Your task to perform on an android device: Open Yahoo.com Image 0: 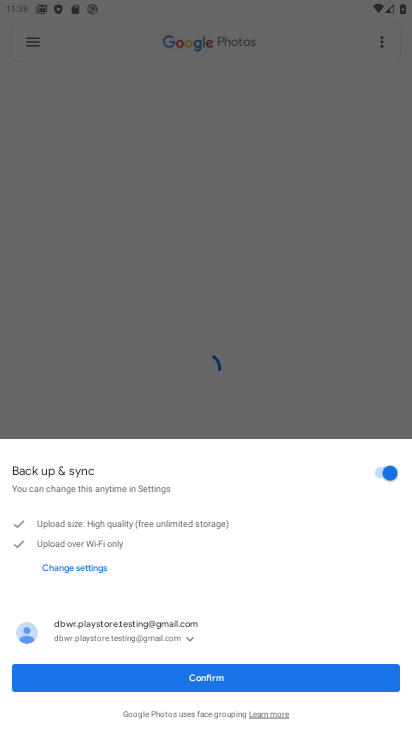
Step 0: press home button
Your task to perform on an android device: Open Yahoo.com Image 1: 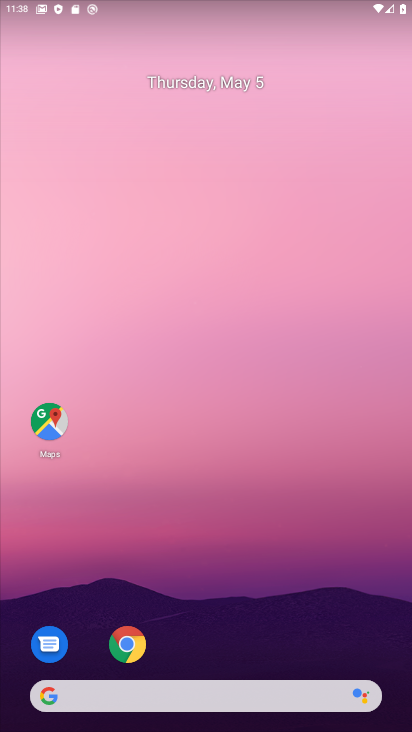
Step 1: click (128, 641)
Your task to perform on an android device: Open Yahoo.com Image 2: 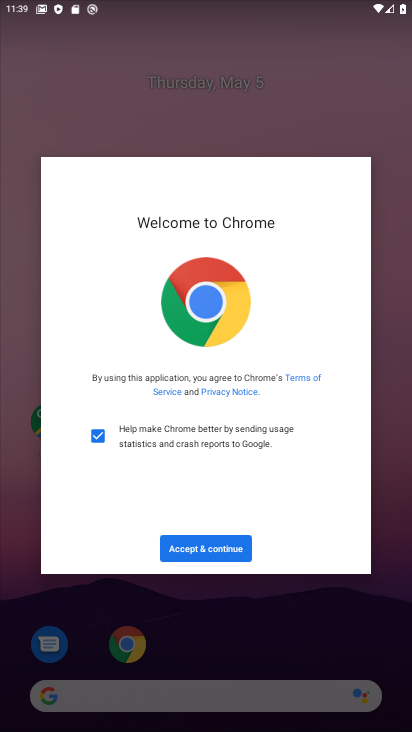
Step 2: click (204, 547)
Your task to perform on an android device: Open Yahoo.com Image 3: 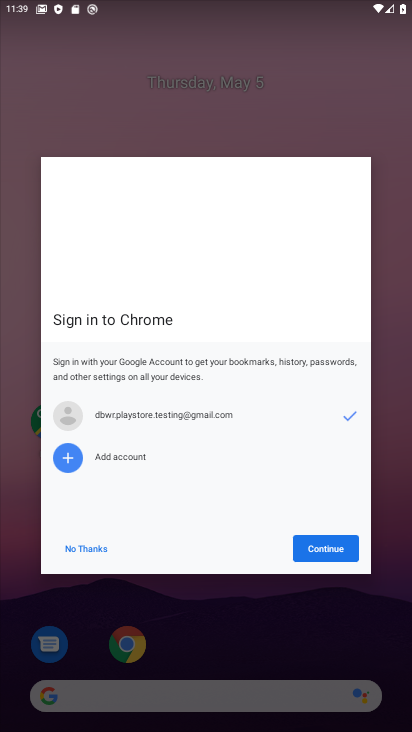
Step 3: click (103, 545)
Your task to perform on an android device: Open Yahoo.com Image 4: 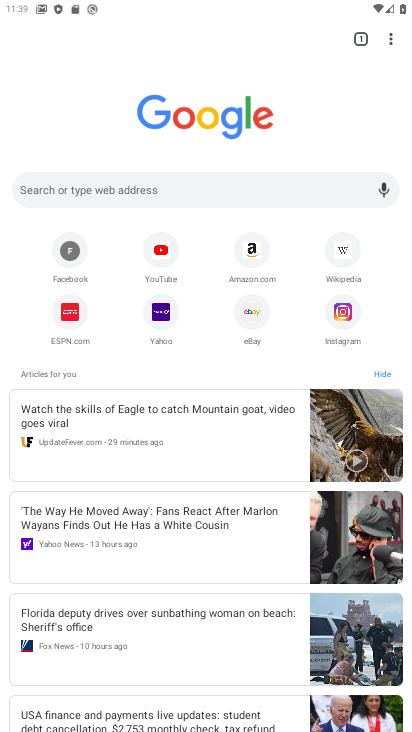
Step 4: click (168, 313)
Your task to perform on an android device: Open Yahoo.com Image 5: 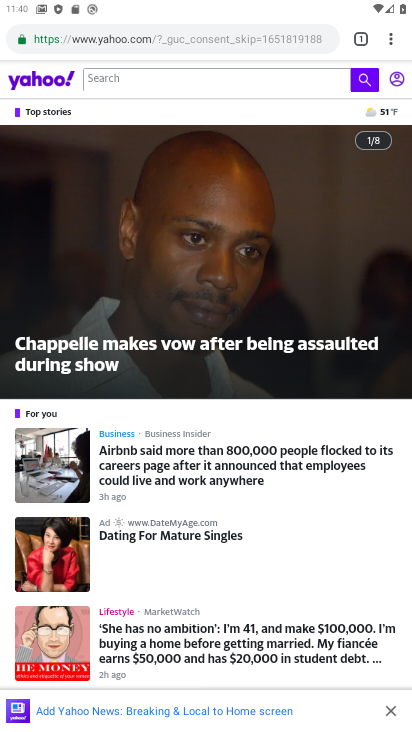
Step 5: task complete